Your task to perform on an android device: What's the weather? Image 0: 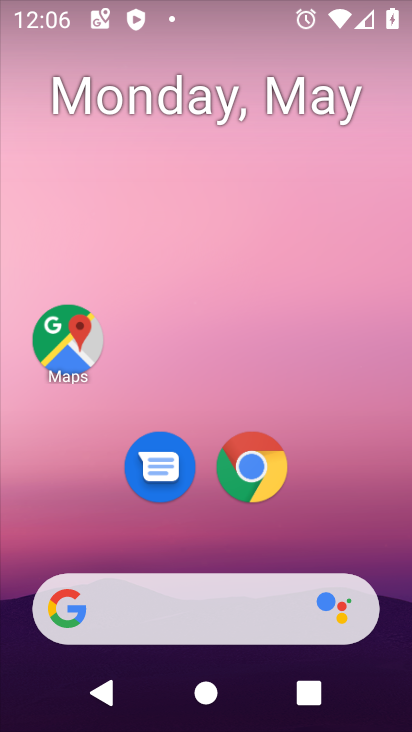
Step 0: click (127, 614)
Your task to perform on an android device: What's the weather? Image 1: 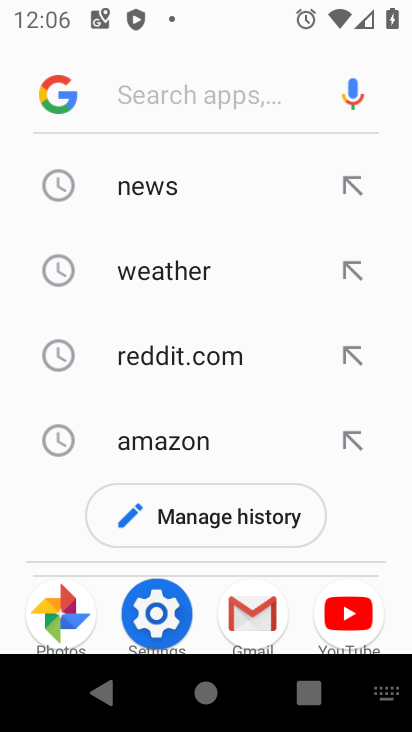
Step 1: click (149, 265)
Your task to perform on an android device: What's the weather? Image 2: 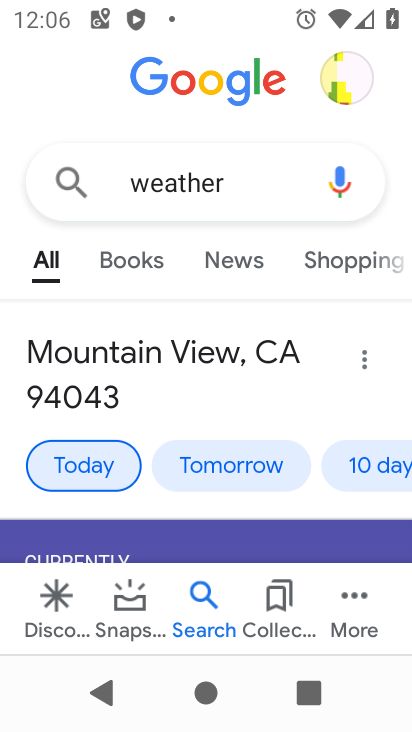
Step 2: task complete